Your task to perform on an android device: Open maps Image 0: 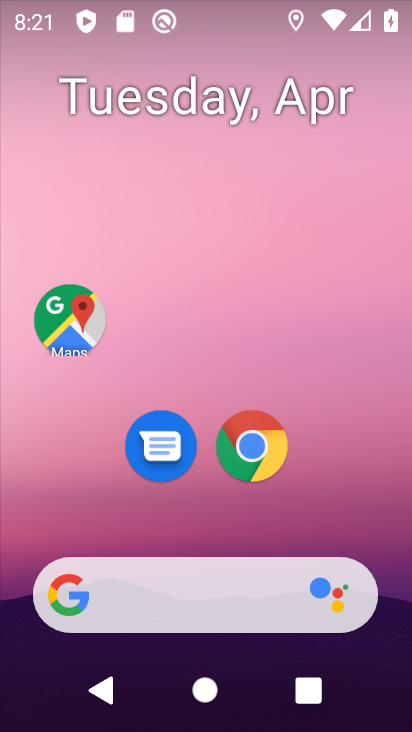
Step 0: click (71, 314)
Your task to perform on an android device: Open maps Image 1: 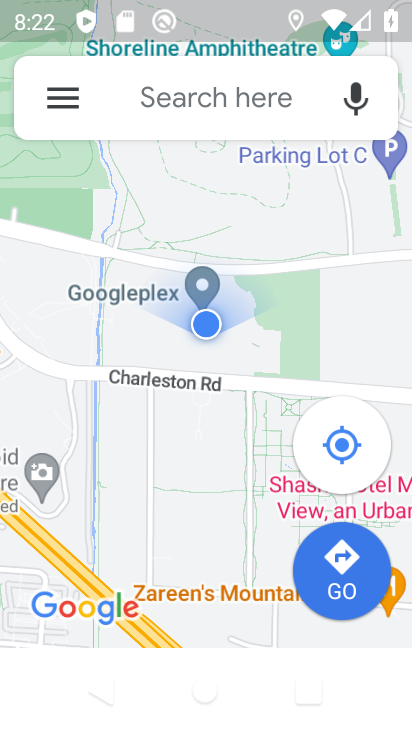
Step 1: task complete